Your task to perform on an android device: turn on wifi Image 0: 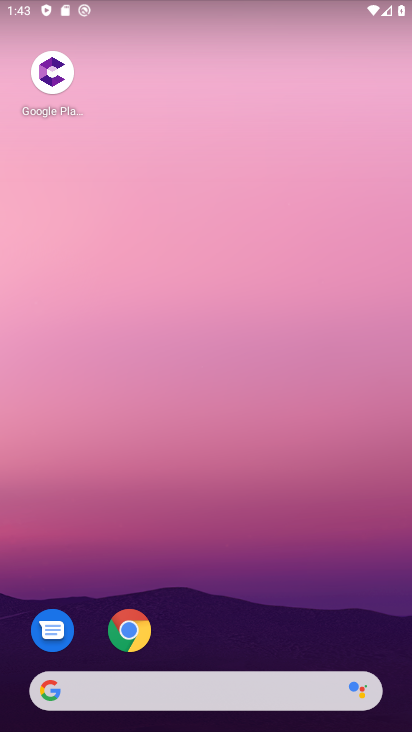
Step 0: drag from (329, 629) to (268, 85)
Your task to perform on an android device: turn on wifi Image 1: 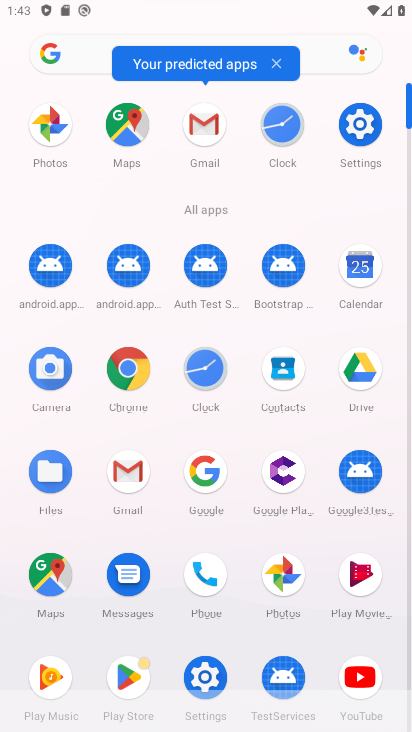
Step 1: click (340, 123)
Your task to perform on an android device: turn on wifi Image 2: 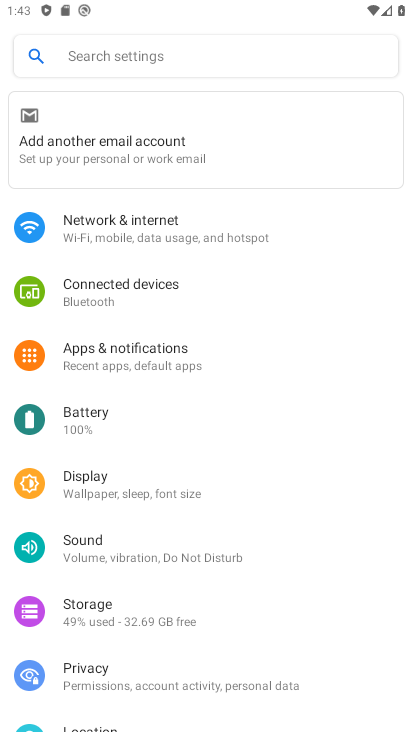
Step 2: click (278, 232)
Your task to perform on an android device: turn on wifi Image 3: 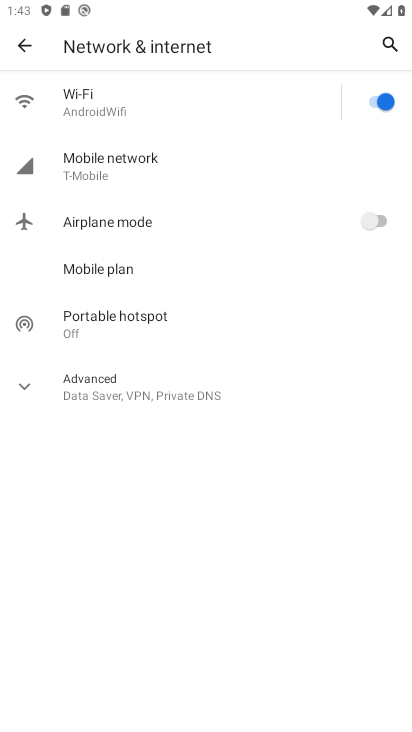
Step 3: task complete